Your task to perform on an android device: Go to Maps Image 0: 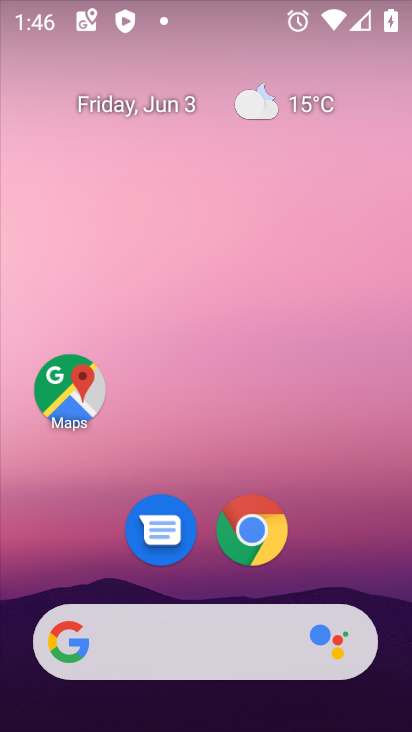
Step 0: click (86, 381)
Your task to perform on an android device: Go to Maps Image 1: 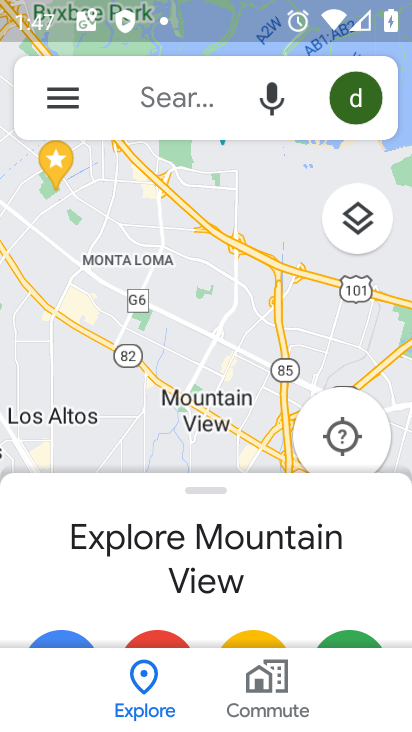
Step 1: task complete